Your task to perform on an android device: set the stopwatch Image 0: 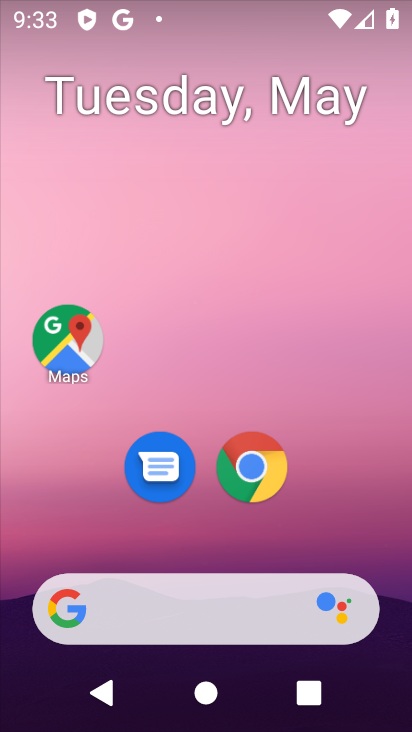
Step 0: drag from (293, 398) to (188, 10)
Your task to perform on an android device: set the stopwatch Image 1: 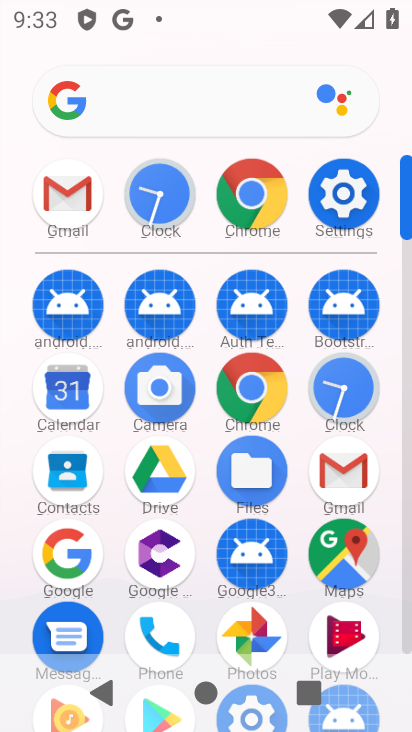
Step 1: drag from (0, 575) to (0, 238)
Your task to perform on an android device: set the stopwatch Image 2: 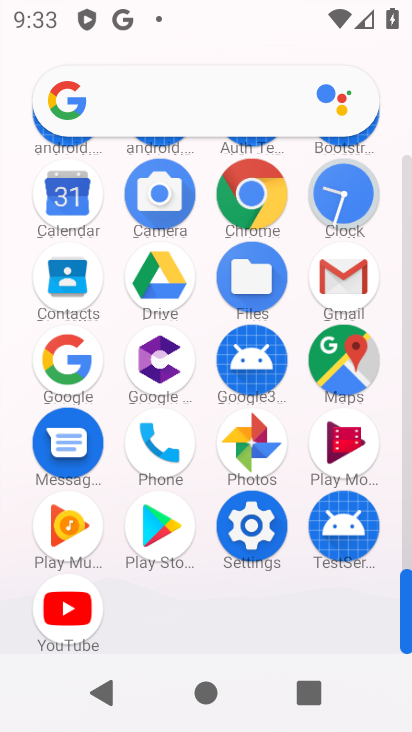
Step 2: click (341, 185)
Your task to perform on an android device: set the stopwatch Image 3: 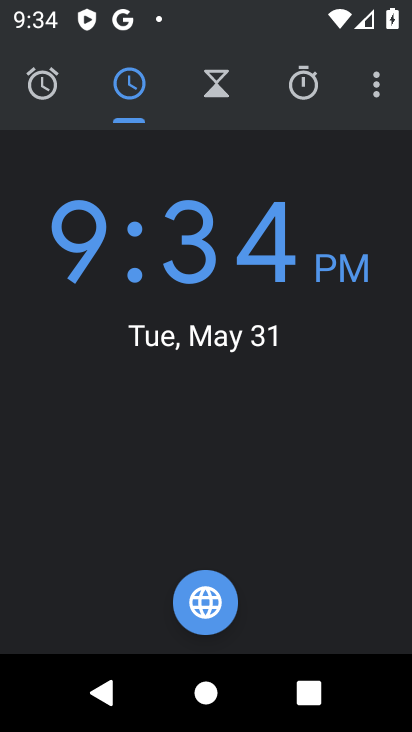
Step 3: click (304, 89)
Your task to perform on an android device: set the stopwatch Image 4: 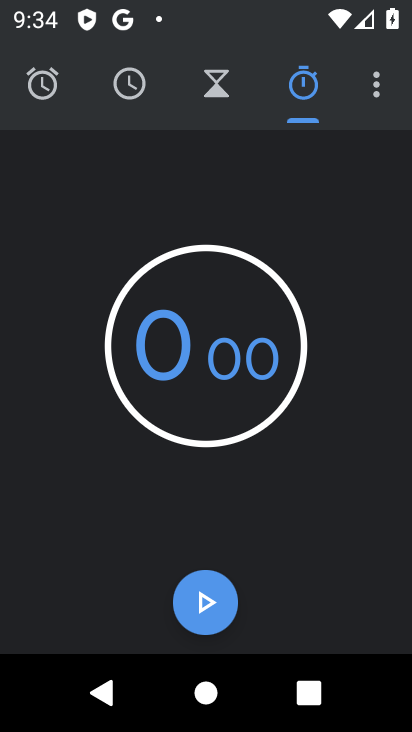
Step 4: click (200, 589)
Your task to perform on an android device: set the stopwatch Image 5: 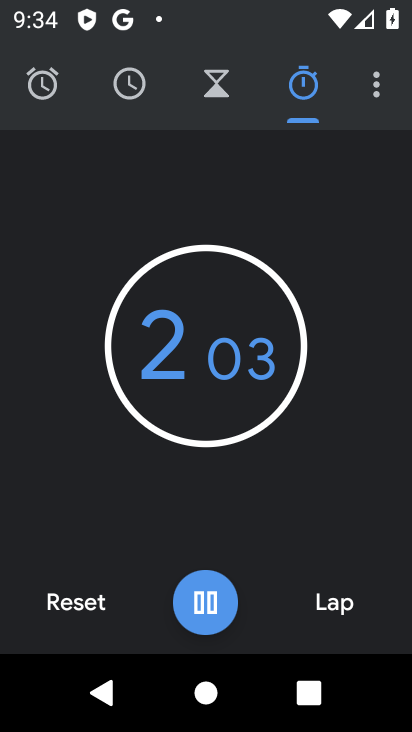
Step 5: task complete